Your task to perform on an android device: turn vacation reply on in the gmail app Image 0: 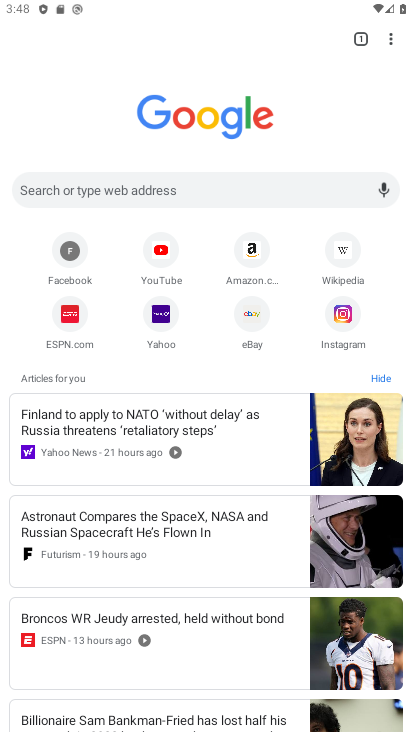
Step 0: press home button
Your task to perform on an android device: turn vacation reply on in the gmail app Image 1: 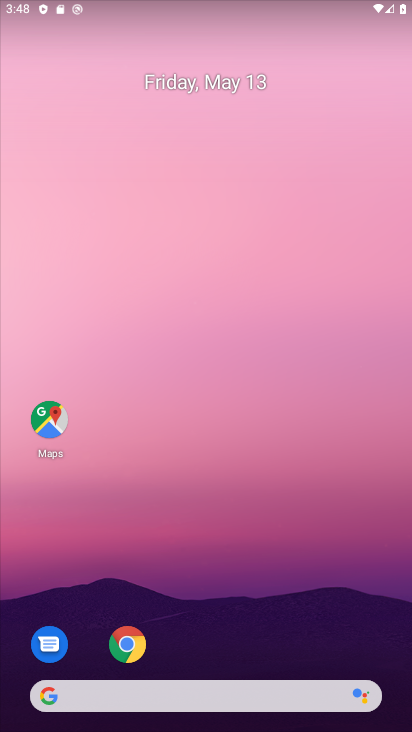
Step 1: drag from (256, 568) to (201, 115)
Your task to perform on an android device: turn vacation reply on in the gmail app Image 2: 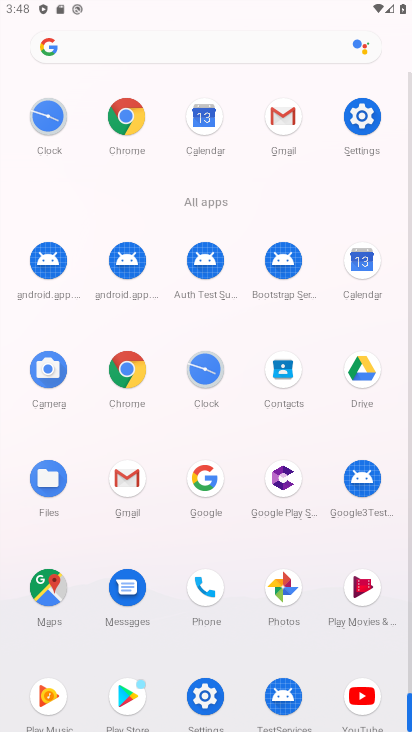
Step 2: click (277, 128)
Your task to perform on an android device: turn vacation reply on in the gmail app Image 3: 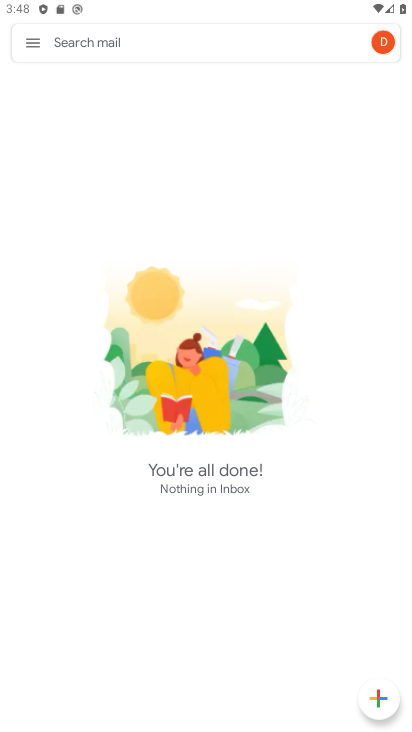
Step 3: click (27, 51)
Your task to perform on an android device: turn vacation reply on in the gmail app Image 4: 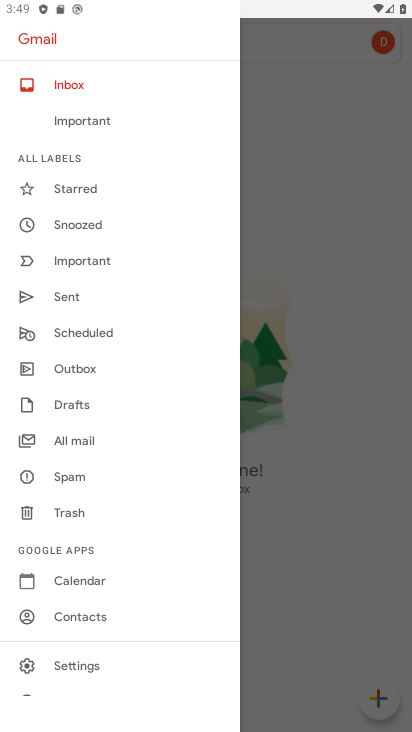
Step 4: click (72, 657)
Your task to perform on an android device: turn vacation reply on in the gmail app Image 5: 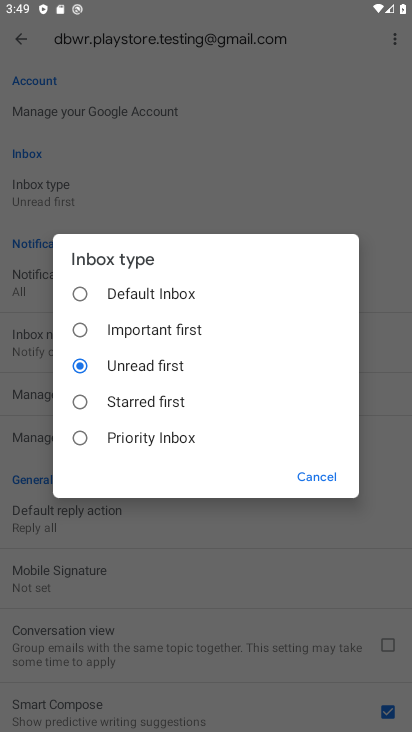
Step 5: click (303, 512)
Your task to perform on an android device: turn vacation reply on in the gmail app Image 6: 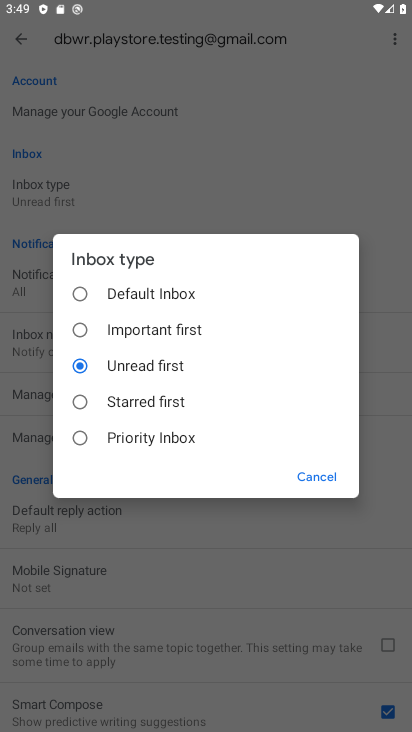
Step 6: click (308, 472)
Your task to perform on an android device: turn vacation reply on in the gmail app Image 7: 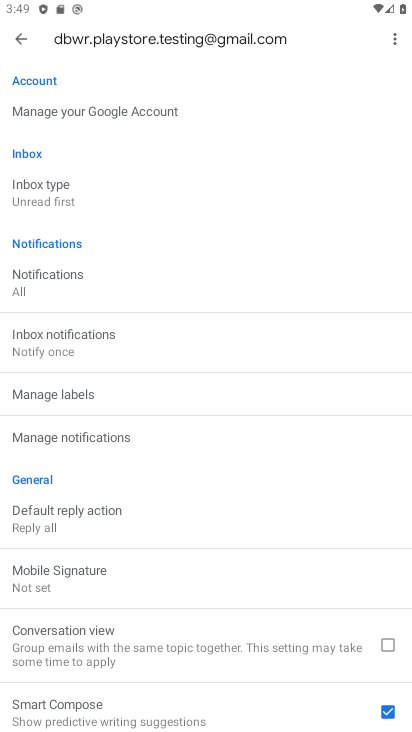
Step 7: task complete